Your task to perform on an android device: open chrome and create a bookmark for the current page Image 0: 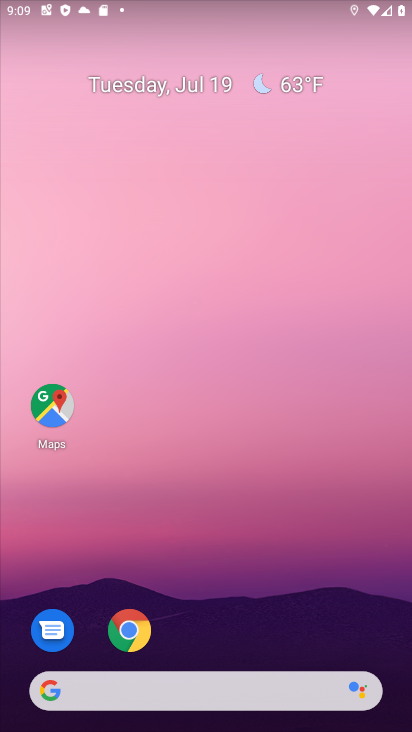
Step 0: click (129, 633)
Your task to perform on an android device: open chrome and create a bookmark for the current page Image 1: 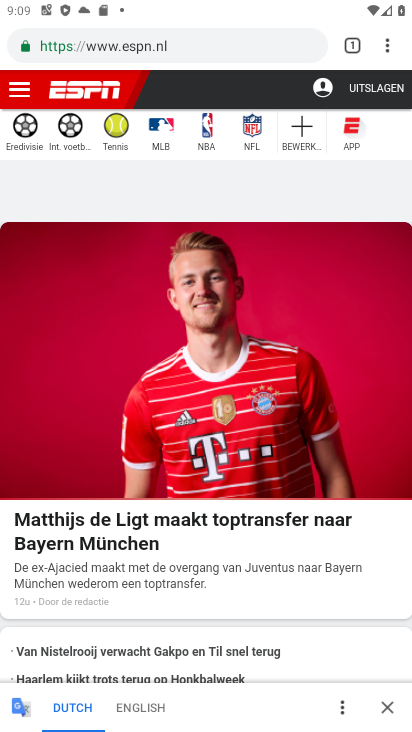
Step 1: click (388, 47)
Your task to perform on an android device: open chrome and create a bookmark for the current page Image 2: 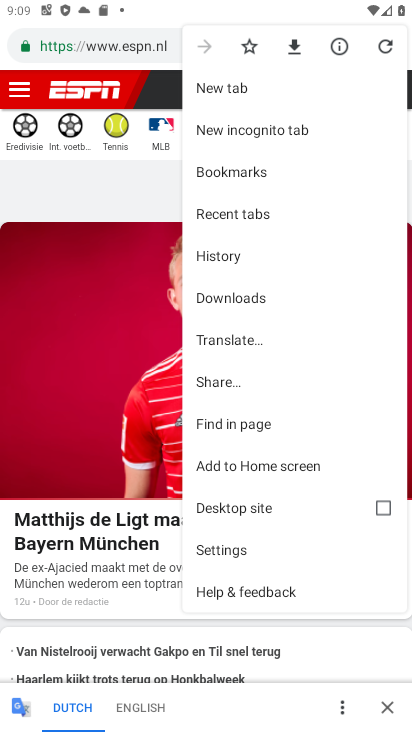
Step 2: click (247, 45)
Your task to perform on an android device: open chrome and create a bookmark for the current page Image 3: 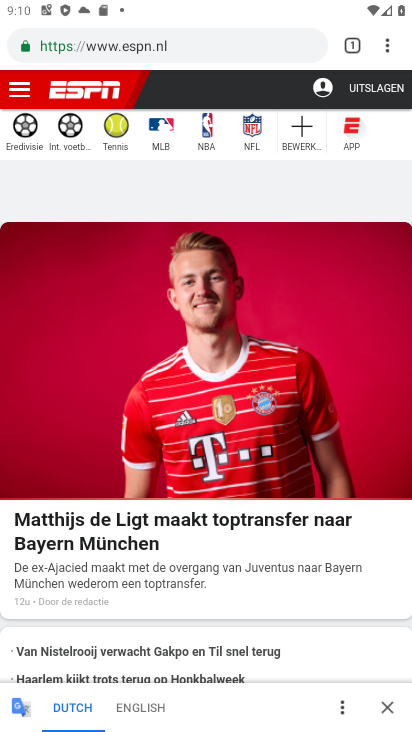
Step 3: task complete